Your task to perform on an android device: Go to CNN.com Image 0: 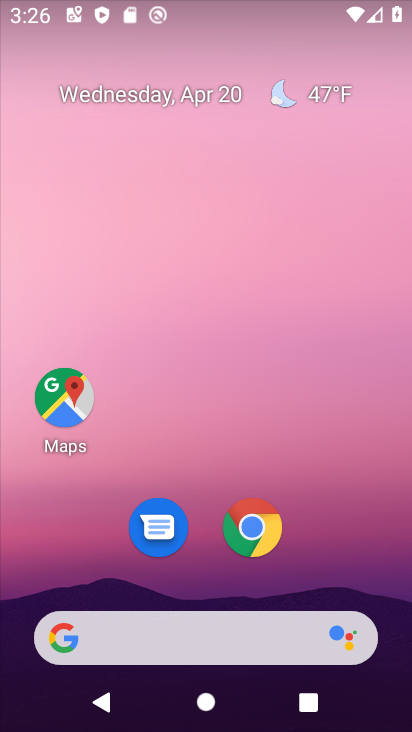
Step 0: click (263, 535)
Your task to perform on an android device: Go to CNN.com Image 1: 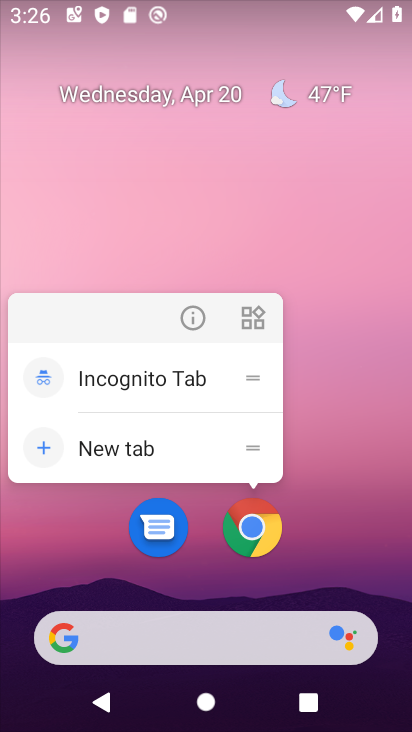
Step 1: click (251, 531)
Your task to perform on an android device: Go to CNN.com Image 2: 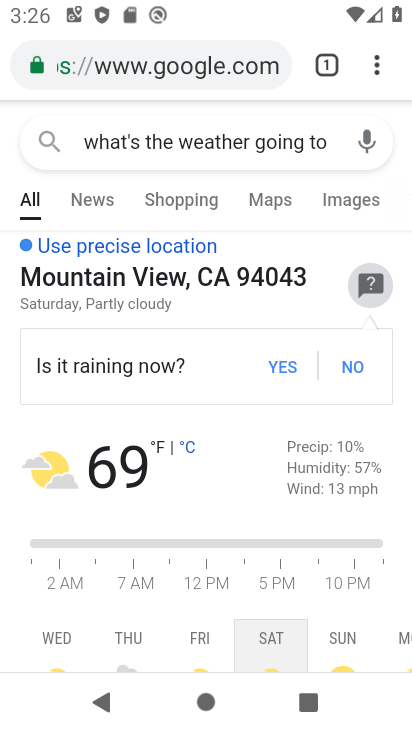
Step 2: click (182, 81)
Your task to perform on an android device: Go to CNN.com Image 3: 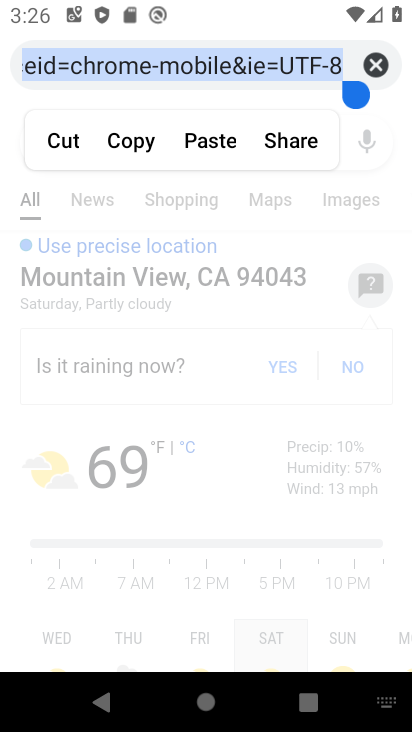
Step 3: type "CNN.com"
Your task to perform on an android device: Go to CNN.com Image 4: 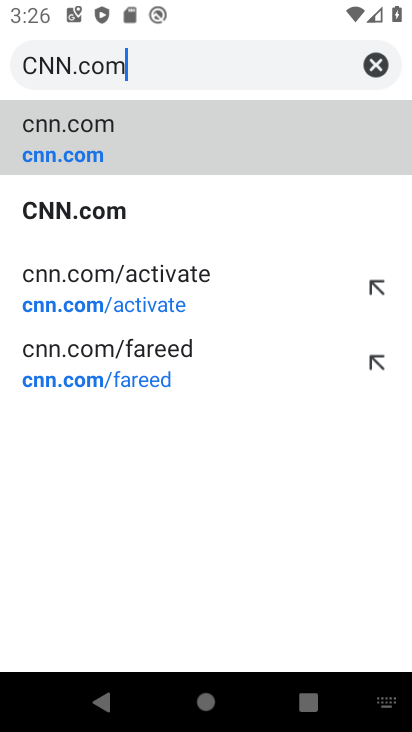
Step 4: click (76, 148)
Your task to perform on an android device: Go to CNN.com Image 5: 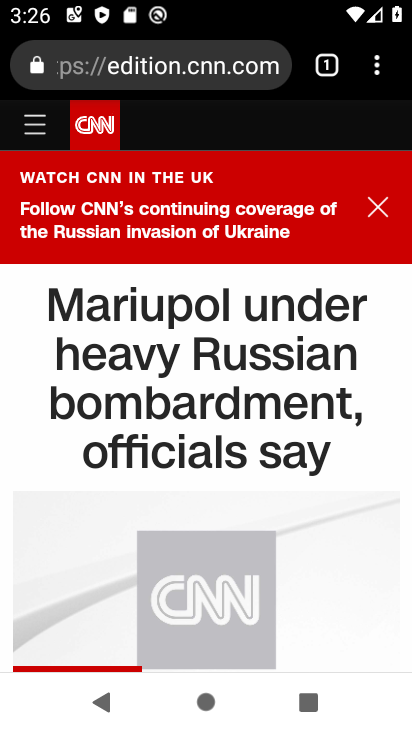
Step 5: task complete